Your task to perform on an android device: Open notification settings Image 0: 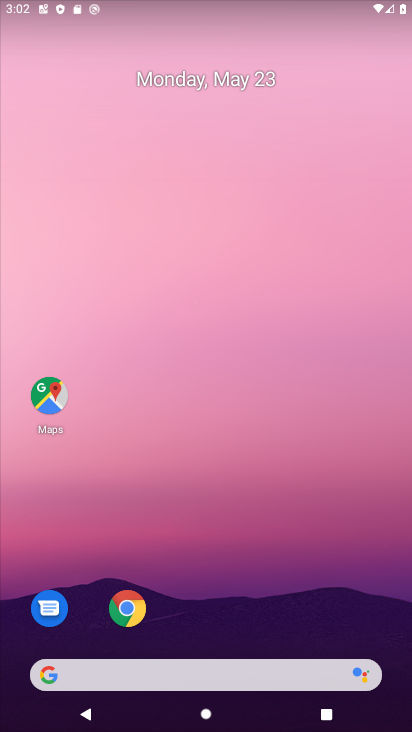
Step 0: drag from (269, 628) to (157, 176)
Your task to perform on an android device: Open notification settings Image 1: 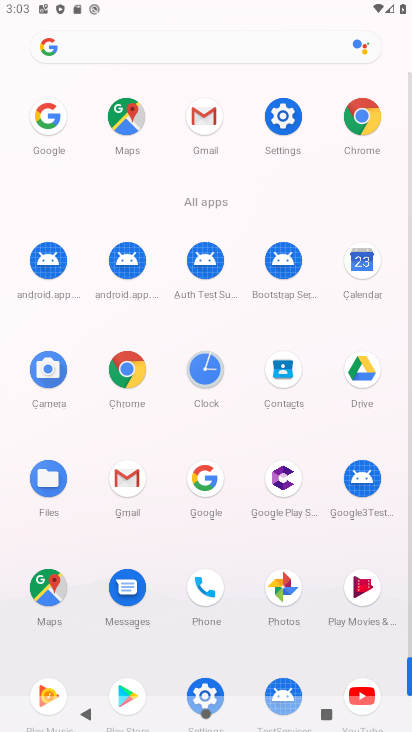
Step 1: click (283, 113)
Your task to perform on an android device: Open notification settings Image 2: 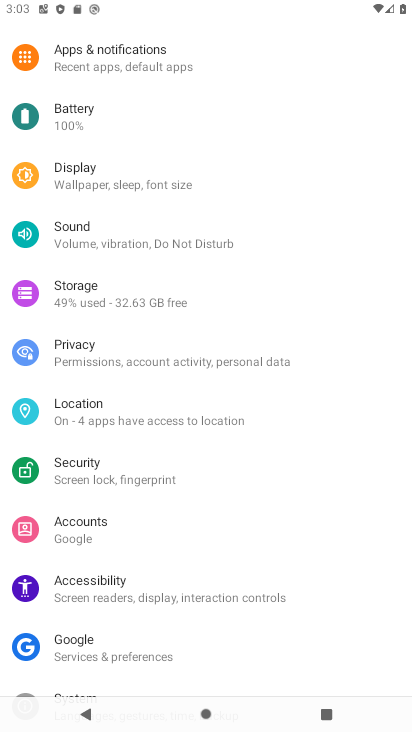
Step 2: drag from (121, 524) to (144, 449)
Your task to perform on an android device: Open notification settings Image 3: 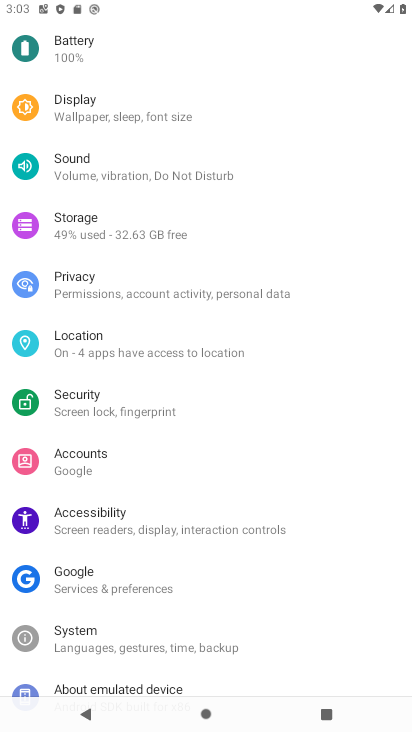
Step 3: drag from (107, 549) to (153, 468)
Your task to perform on an android device: Open notification settings Image 4: 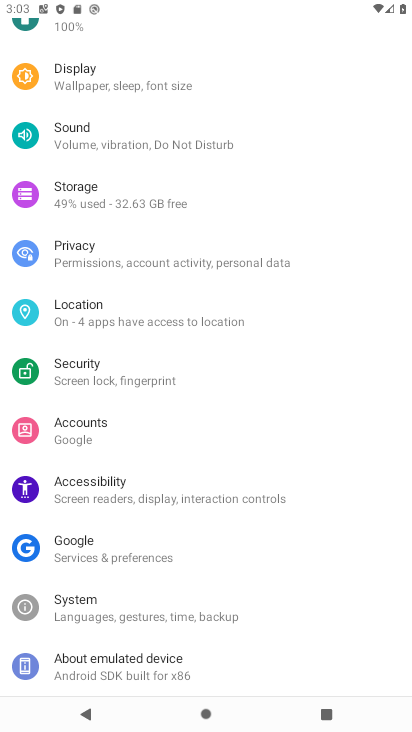
Step 4: drag from (120, 287) to (97, 451)
Your task to perform on an android device: Open notification settings Image 5: 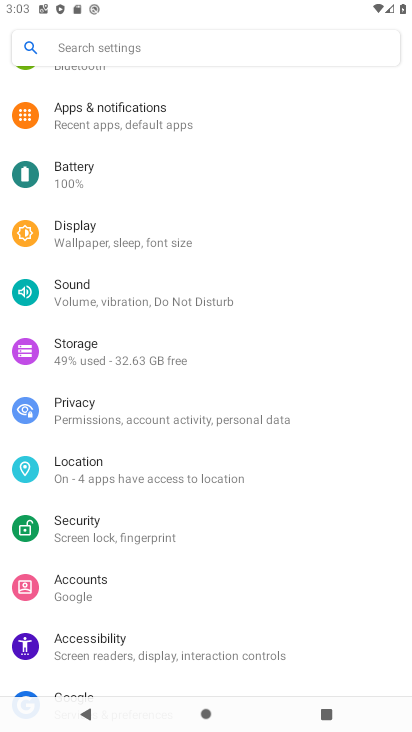
Step 5: drag from (121, 260) to (102, 371)
Your task to perform on an android device: Open notification settings Image 6: 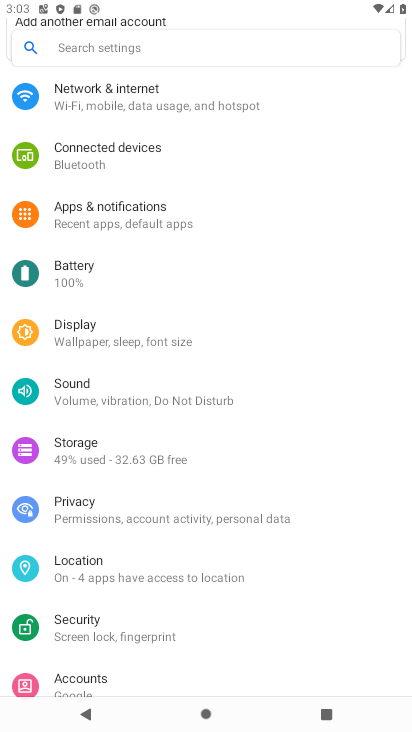
Step 6: click (93, 211)
Your task to perform on an android device: Open notification settings Image 7: 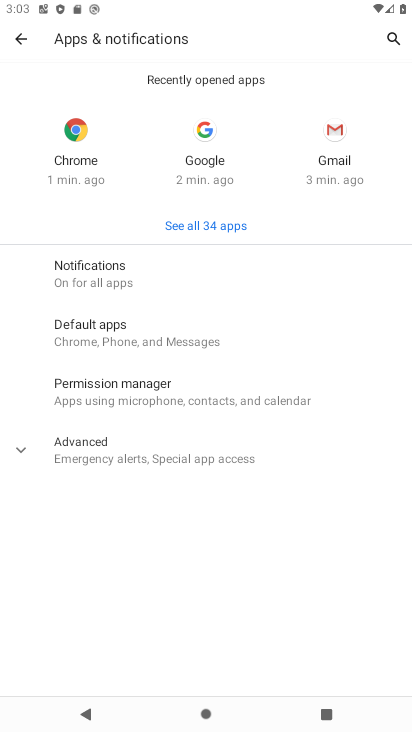
Step 7: click (103, 273)
Your task to perform on an android device: Open notification settings Image 8: 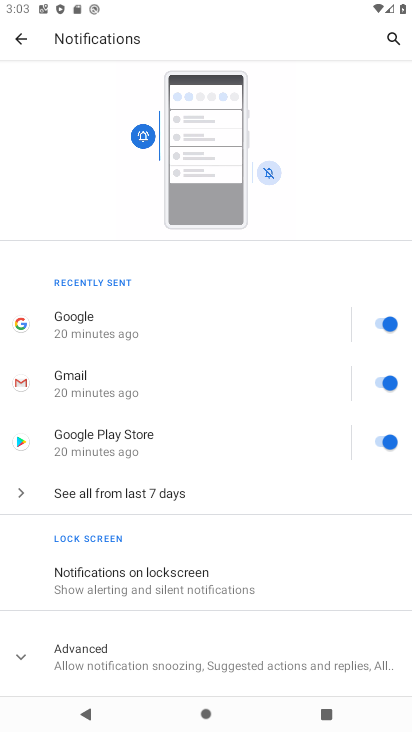
Step 8: task complete